Your task to perform on an android device: Go to ESPN.com Image 0: 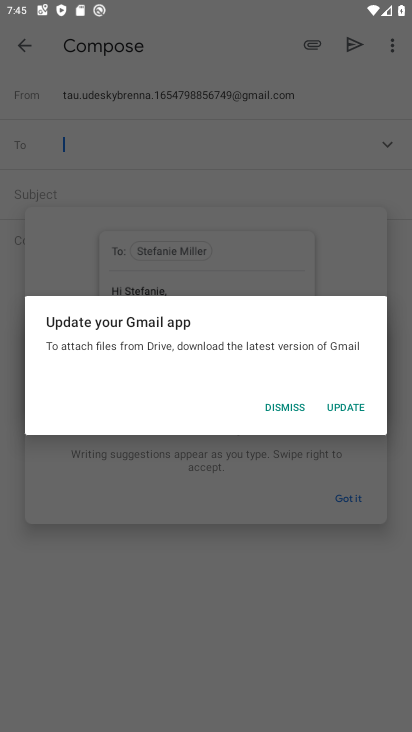
Step 0: press home button
Your task to perform on an android device: Go to ESPN.com Image 1: 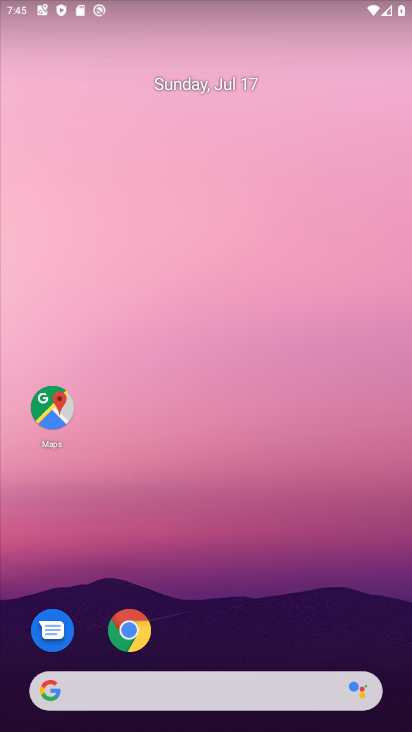
Step 1: click (152, 688)
Your task to perform on an android device: Go to ESPN.com Image 2: 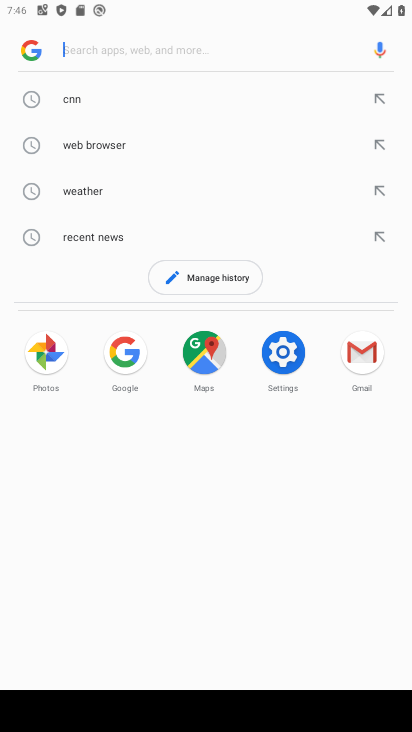
Step 2: type "espn.com"
Your task to perform on an android device: Go to ESPN.com Image 3: 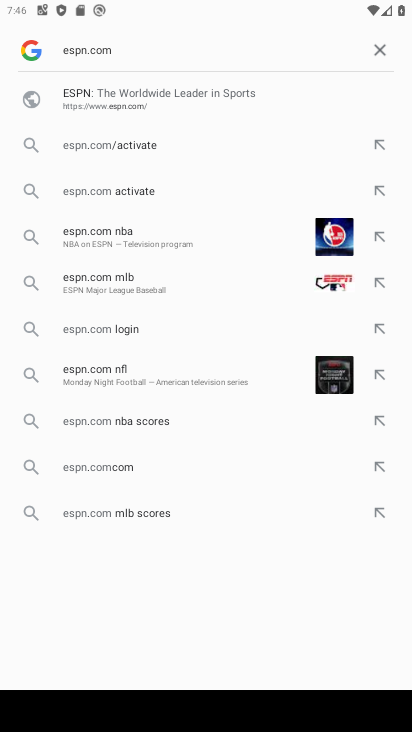
Step 3: click (275, 97)
Your task to perform on an android device: Go to ESPN.com Image 4: 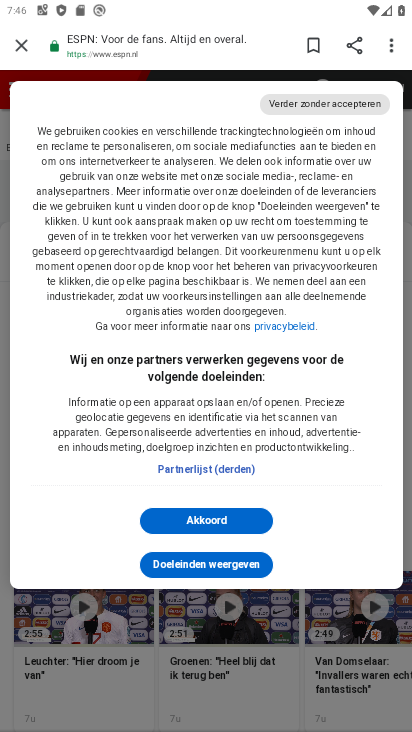
Step 4: task complete